Your task to perform on an android device: Go to settings Image 0: 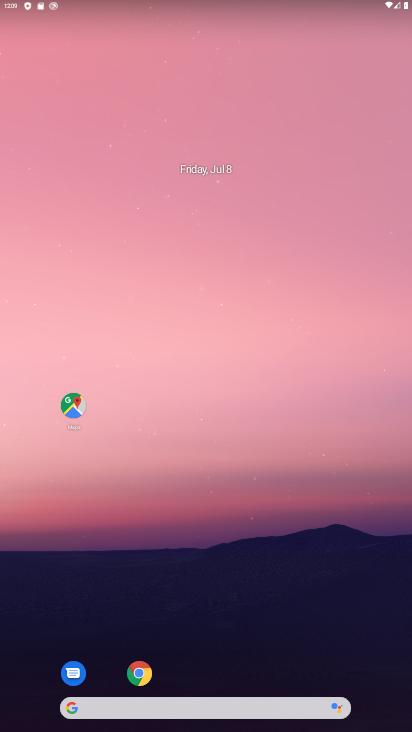
Step 0: drag from (205, 663) to (238, 116)
Your task to perform on an android device: Go to settings Image 1: 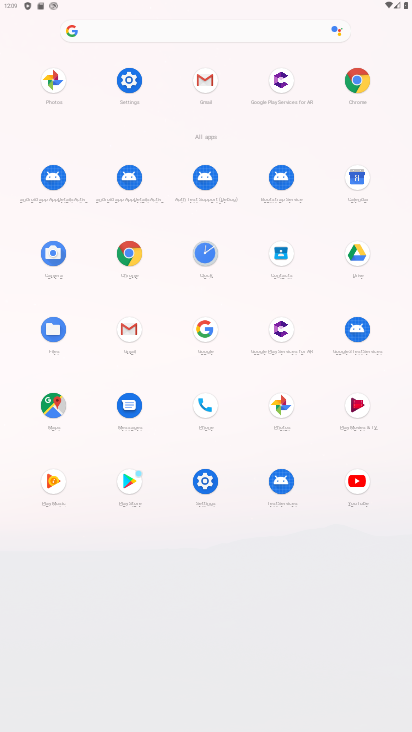
Step 1: click (132, 76)
Your task to perform on an android device: Go to settings Image 2: 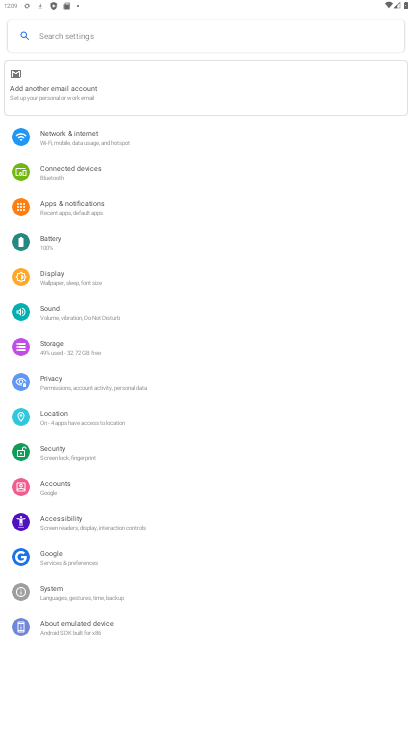
Step 2: task complete